Your task to perform on an android device: Go to Amazon Image 0: 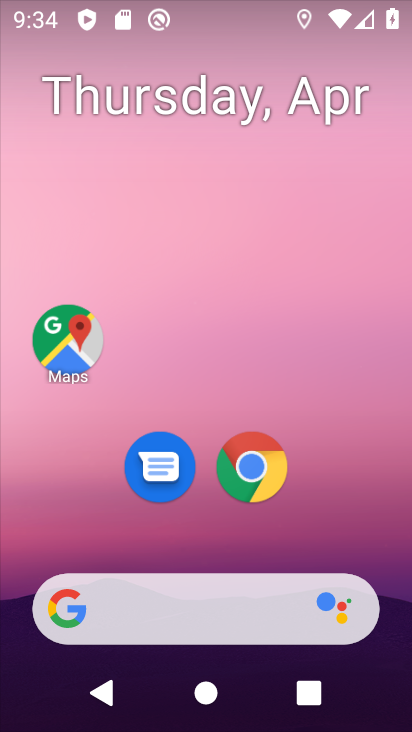
Step 0: click (250, 452)
Your task to perform on an android device: Go to Amazon Image 1: 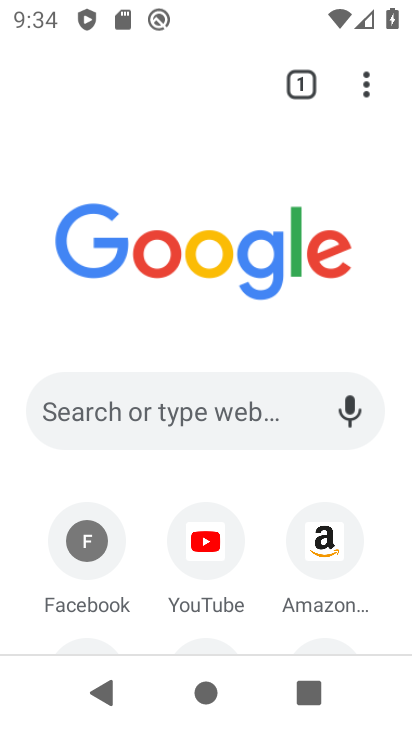
Step 1: click (326, 535)
Your task to perform on an android device: Go to Amazon Image 2: 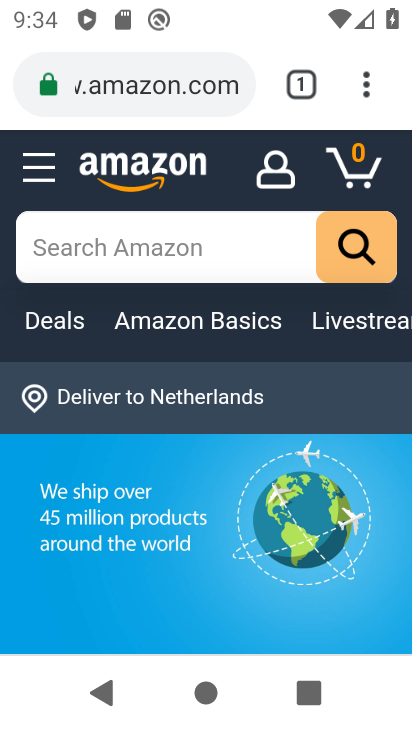
Step 2: task complete